Your task to perform on an android device: change the clock display to show seconds Image 0: 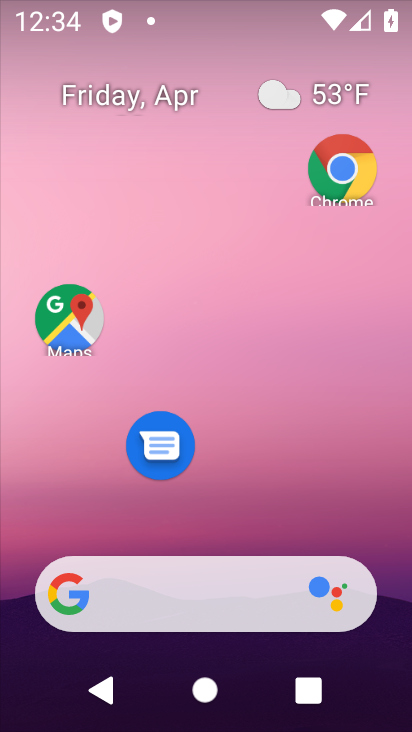
Step 0: drag from (366, 515) to (200, 14)
Your task to perform on an android device: change the clock display to show seconds Image 1: 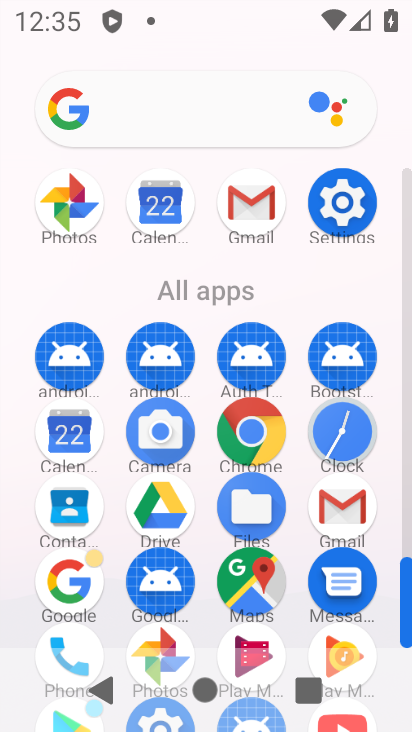
Step 1: drag from (343, 426) to (235, 227)
Your task to perform on an android device: change the clock display to show seconds Image 2: 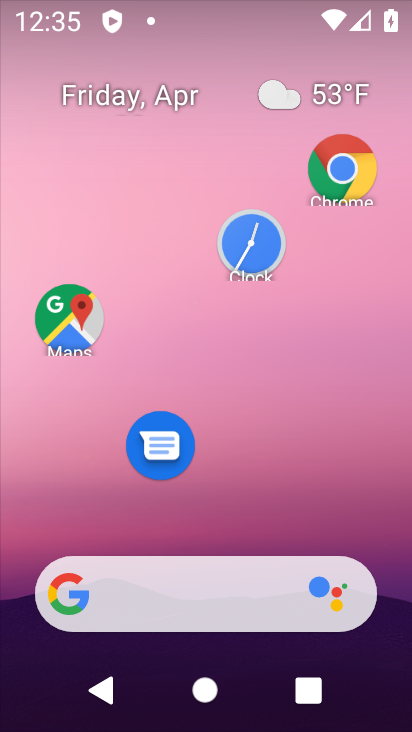
Step 2: click (243, 247)
Your task to perform on an android device: change the clock display to show seconds Image 3: 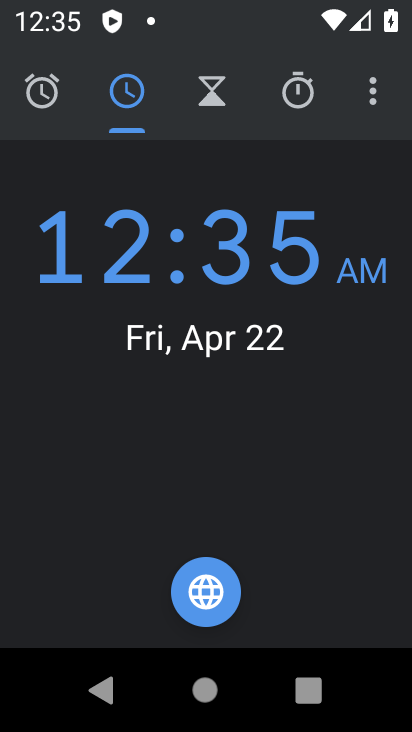
Step 3: click (371, 92)
Your task to perform on an android device: change the clock display to show seconds Image 4: 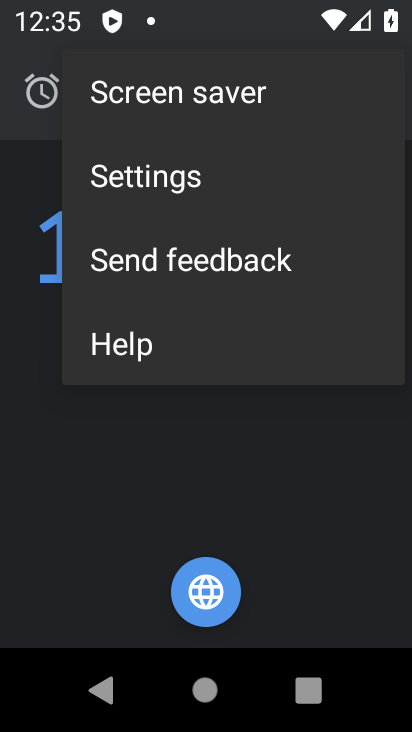
Step 4: click (371, 92)
Your task to perform on an android device: change the clock display to show seconds Image 5: 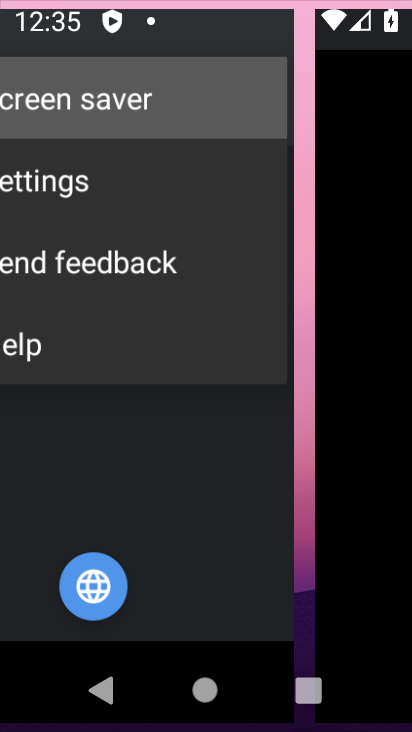
Step 5: click (371, 92)
Your task to perform on an android device: change the clock display to show seconds Image 6: 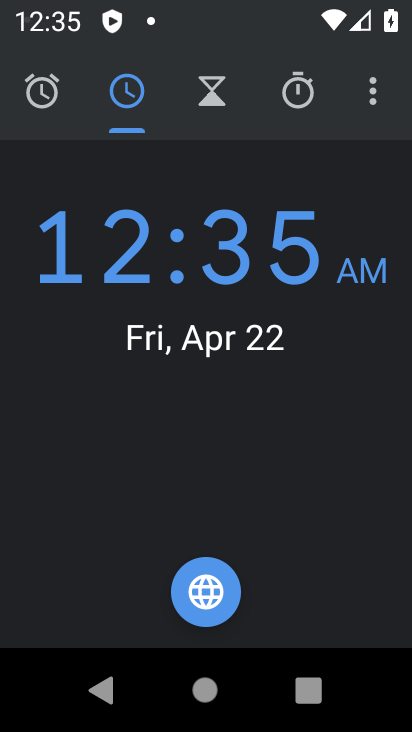
Step 6: click (362, 87)
Your task to perform on an android device: change the clock display to show seconds Image 7: 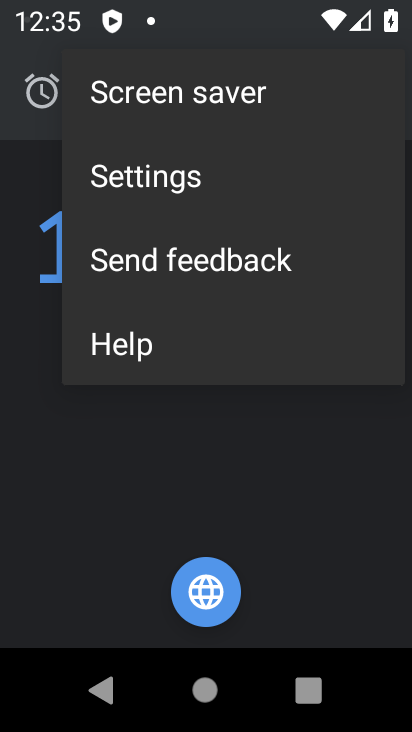
Step 7: click (283, 190)
Your task to perform on an android device: change the clock display to show seconds Image 8: 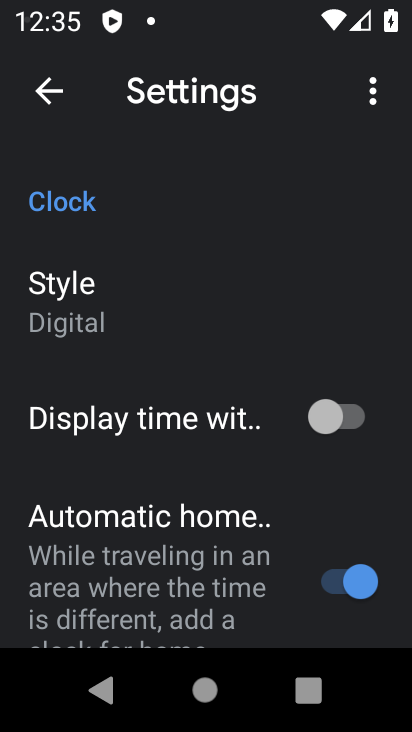
Step 8: click (105, 322)
Your task to perform on an android device: change the clock display to show seconds Image 9: 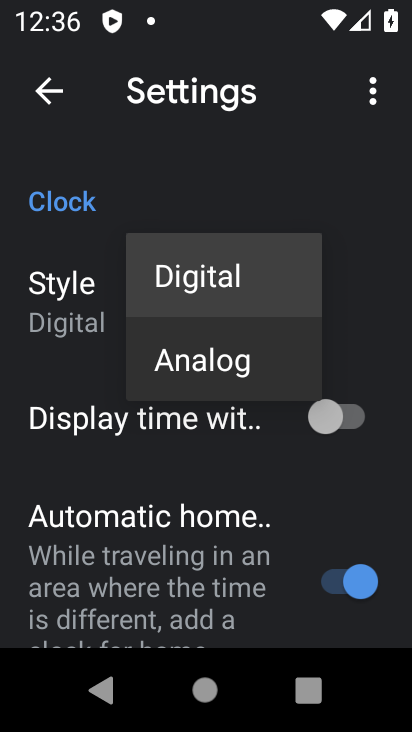
Step 9: click (114, 400)
Your task to perform on an android device: change the clock display to show seconds Image 10: 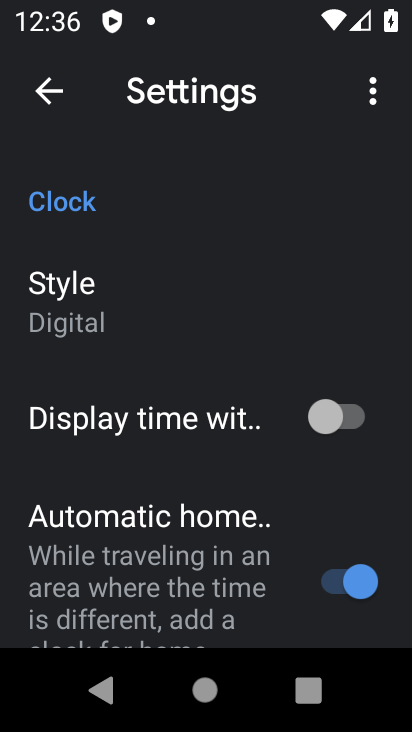
Step 10: click (273, 407)
Your task to perform on an android device: change the clock display to show seconds Image 11: 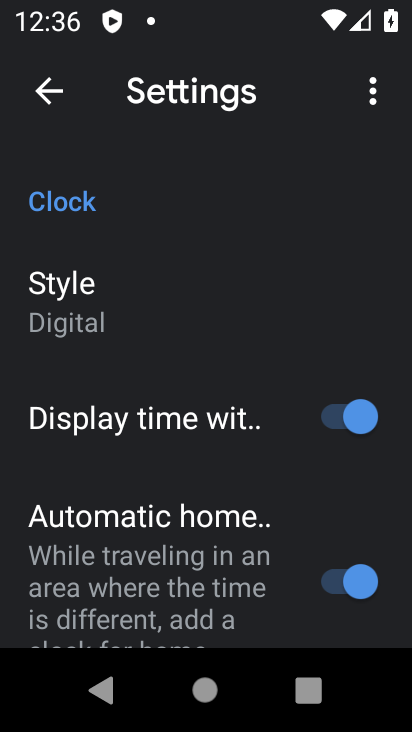
Step 11: task complete